Your task to perform on an android device: Open Chrome and go to settings Image 0: 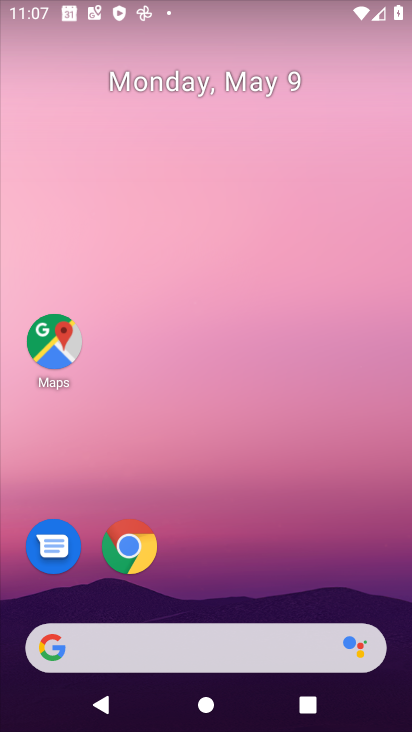
Step 0: click (129, 549)
Your task to perform on an android device: Open Chrome and go to settings Image 1: 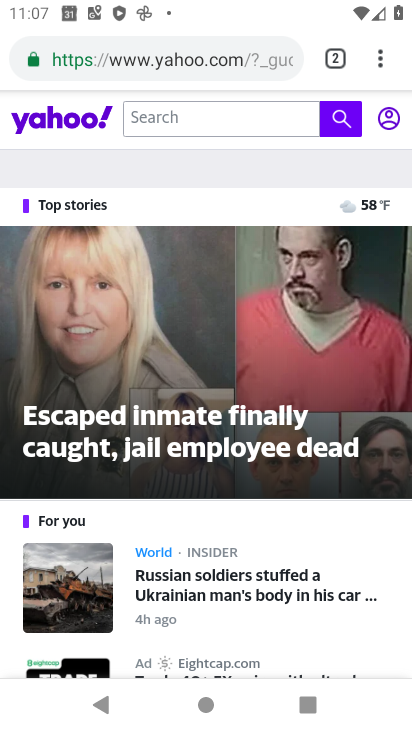
Step 1: click (370, 65)
Your task to perform on an android device: Open Chrome and go to settings Image 2: 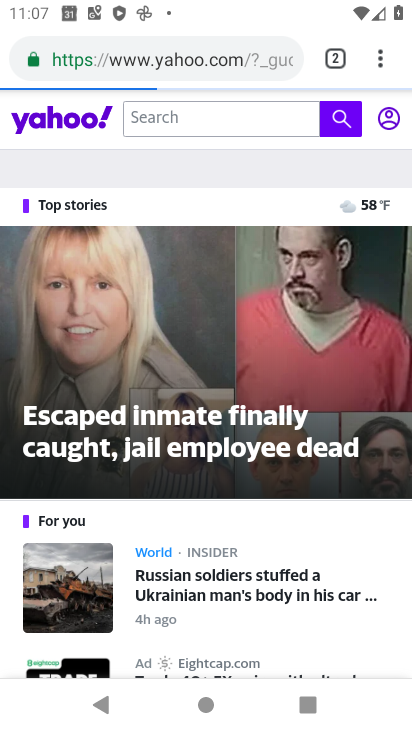
Step 2: drag from (376, 51) to (275, 582)
Your task to perform on an android device: Open Chrome and go to settings Image 3: 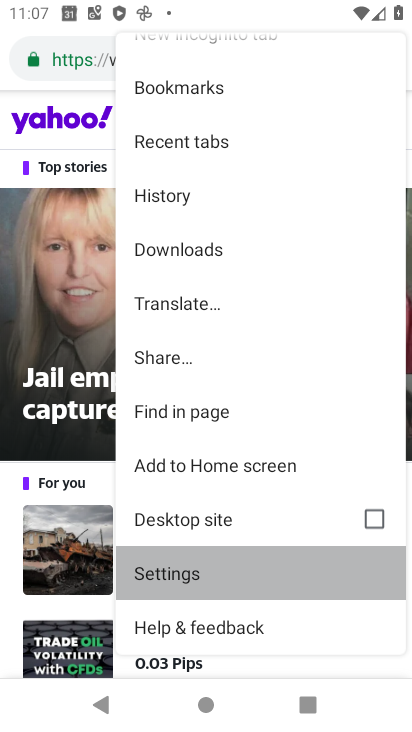
Step 3: click (275, 582)
Your task to perform on an android device: Open Chrome and go to settings Image 4: 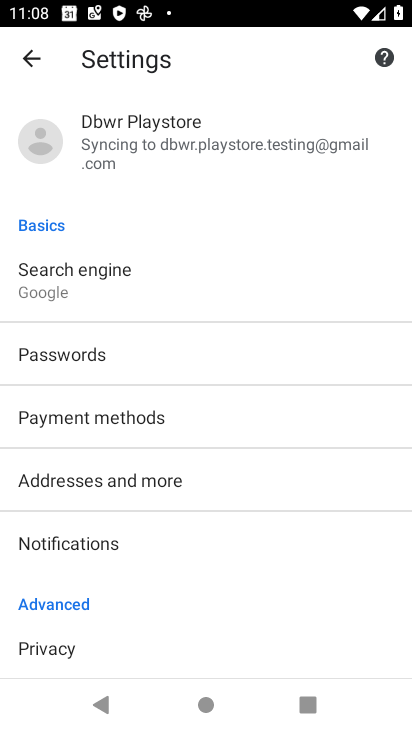
Step 4: task complete